Your task to perform on an android device: open app "Facebook" Image 0: 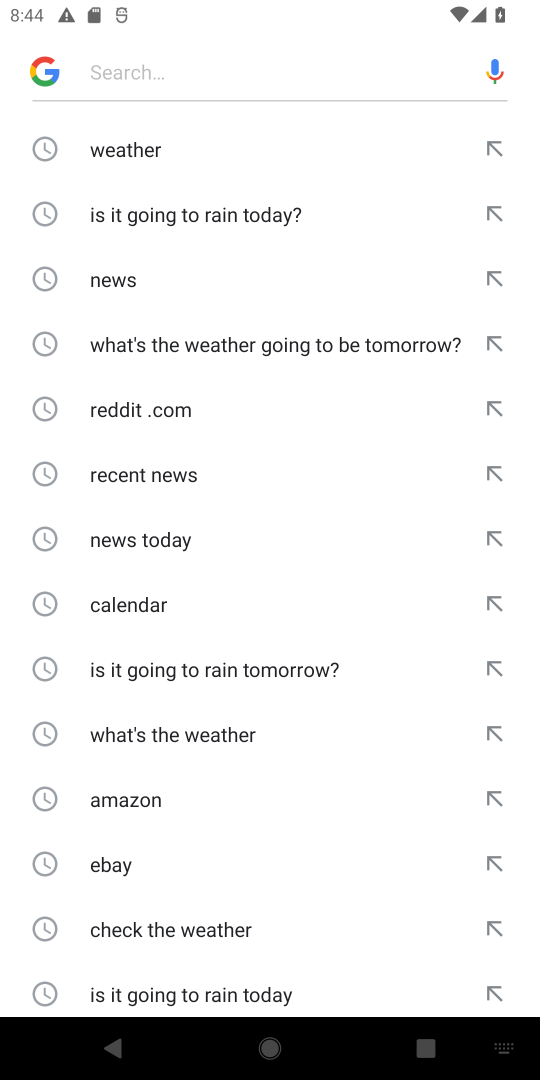
Step 0: press home button
Your task to perform on an android device: open app "Facebook" Image 1: 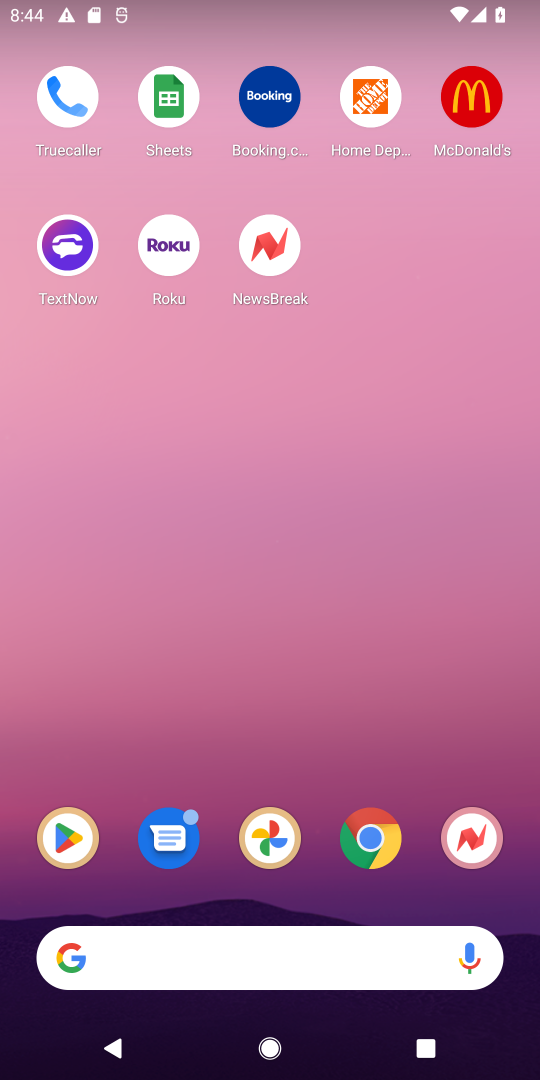
Step 1: drag from (297, 941) to (355, 3)
Your task to perform on an android device: open app "Facebook" Image 2: 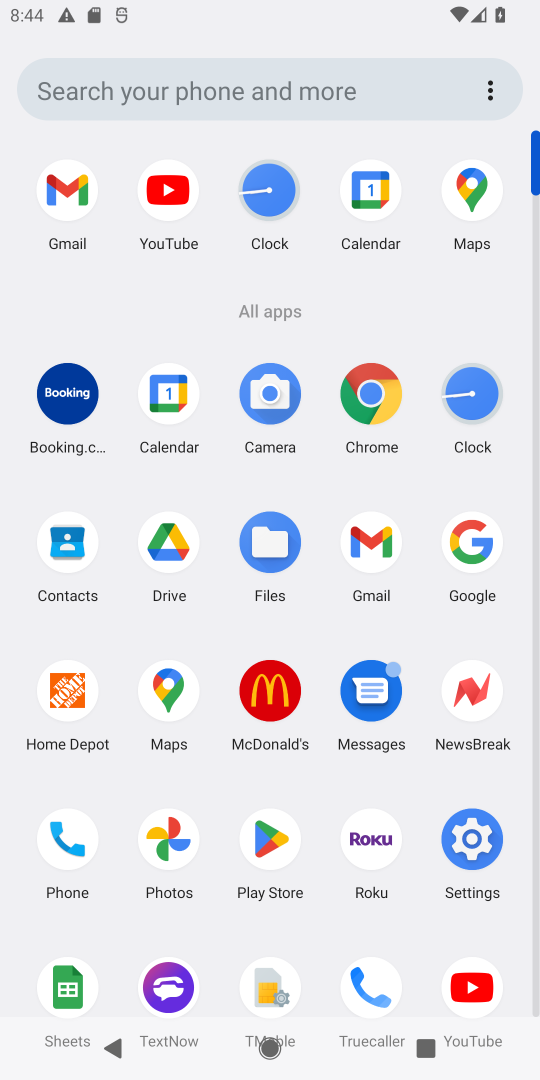
Step 2: click (258, 841)
Your task to perform on an android device: open app "Facebook" Image 3: 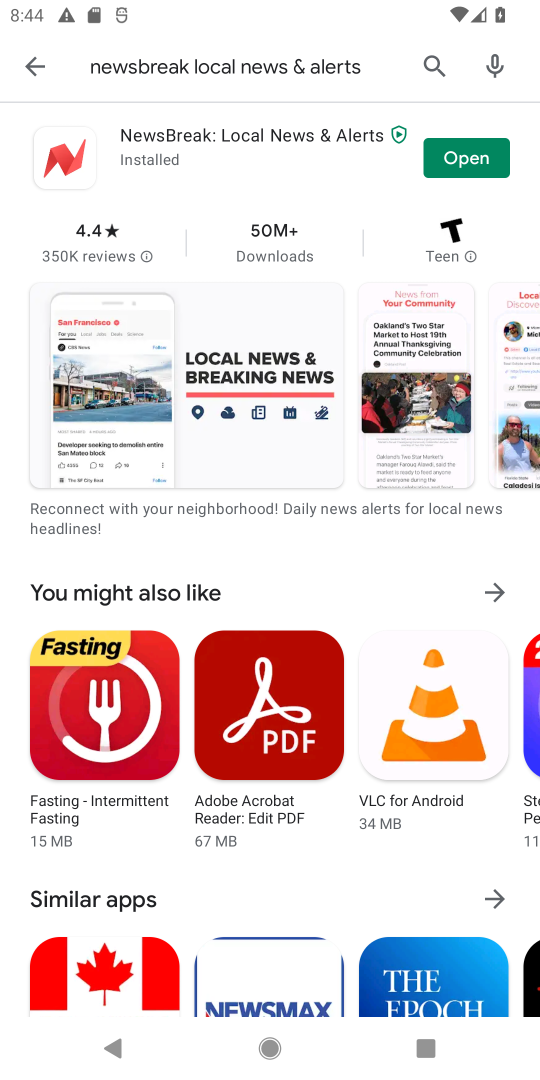
Step 3: click (418, 54)
Your task to perform on an android device: open app "Facebook" Image 4: 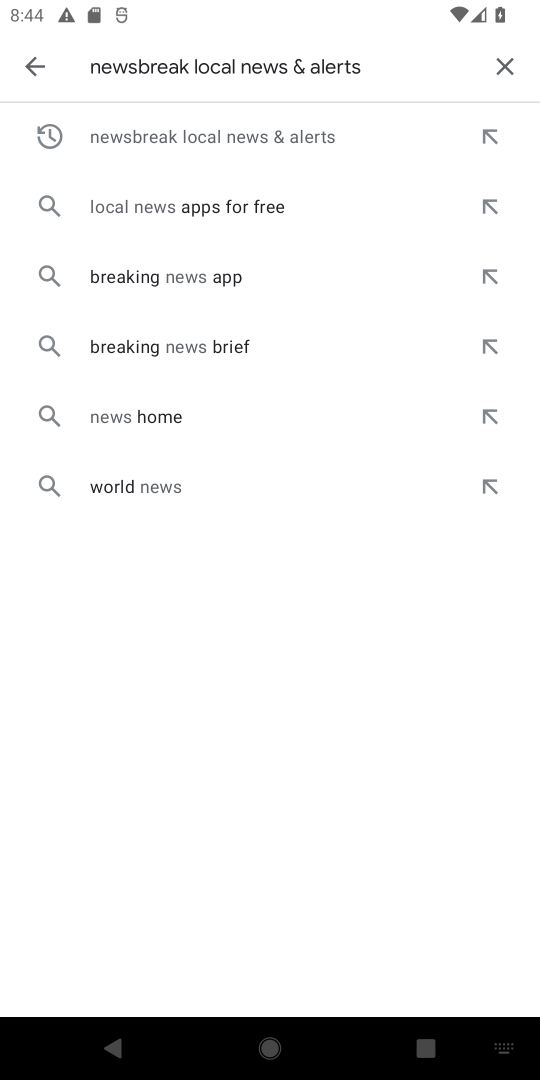
Step 4: click (508, 68)
Your task to perform on an android device: open app "Facebook" Image 5: 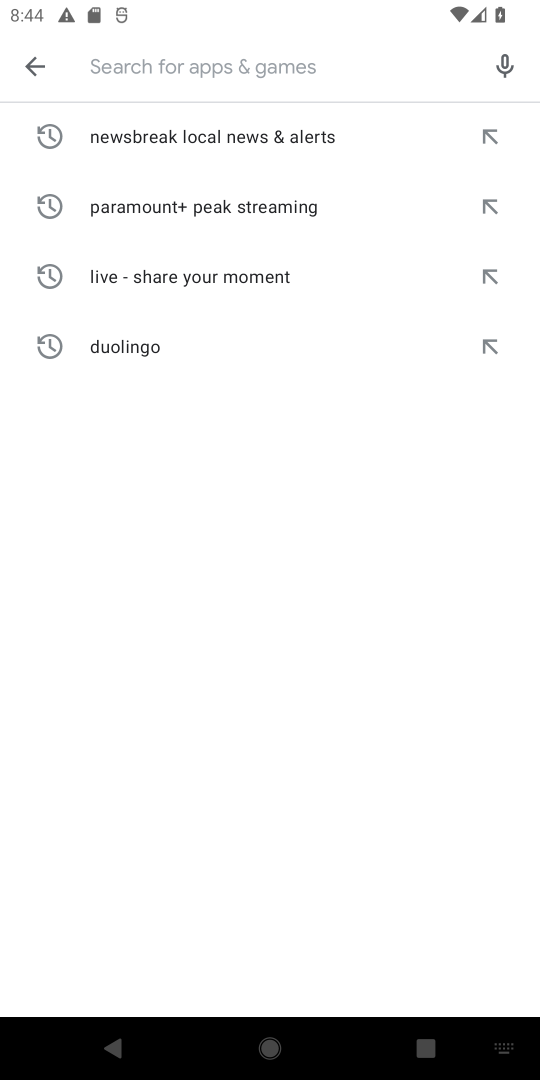
Step 5: type "facebook"
Your task to perform on an android device: open app "Facebook" Image 6: 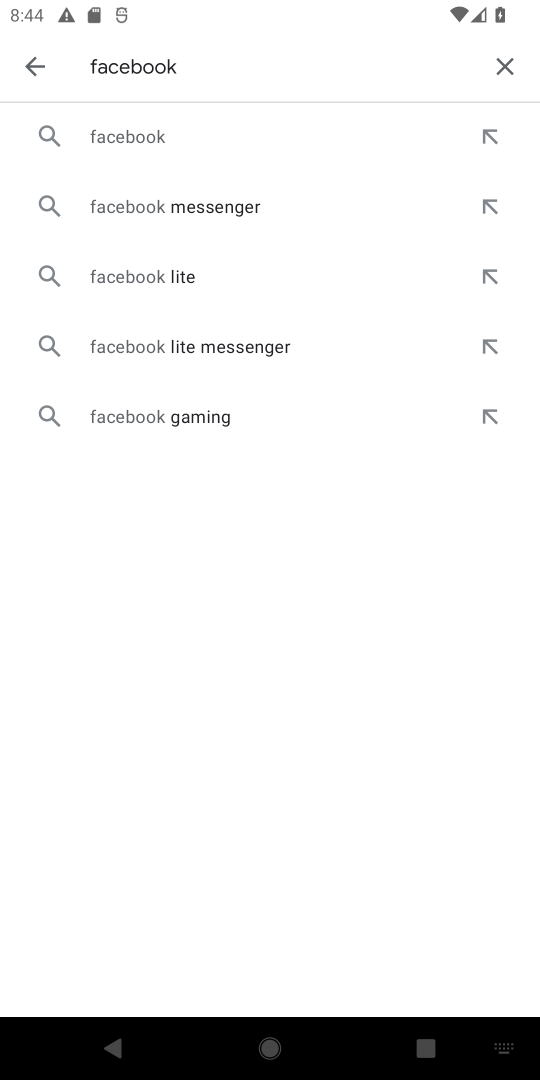
Step 6: click (132, 119)
Your task to perform on an android device: open app "Facebook" Image 7: 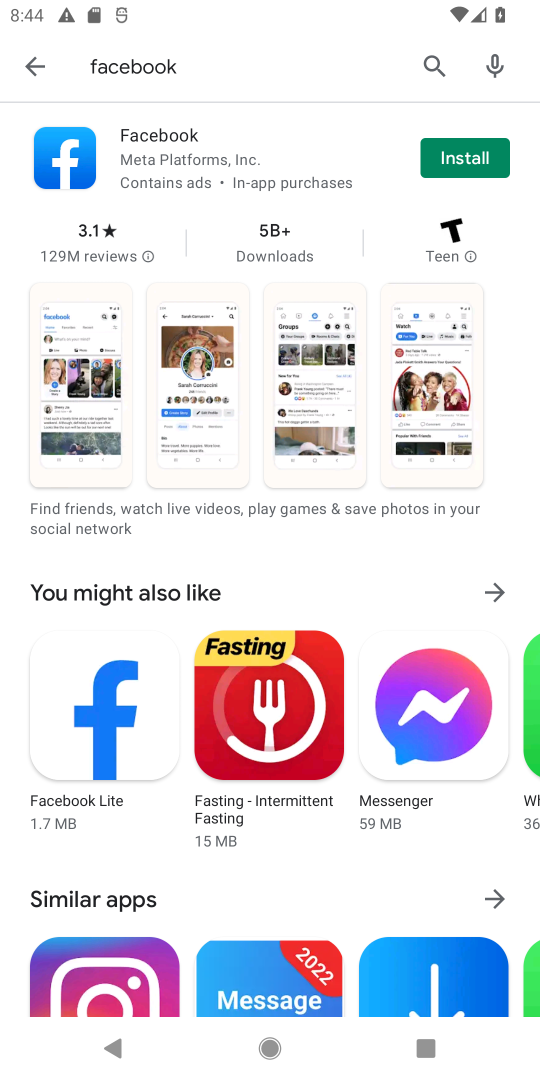
Step 7: task complete